Your task to perform on an android device: Go to battery settings Image 0: 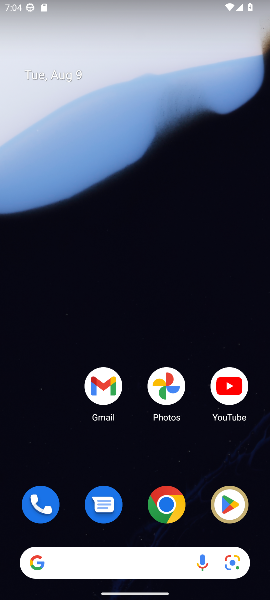
Step 0: press home button
Your task to perform on an android device: Go to battery settings Image 1: 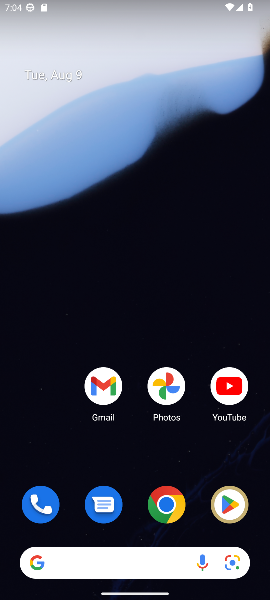
Step 1: drag from (141, 463) to (175, 36)
Your task to perform on an android device: Go to battery settings Image 2: 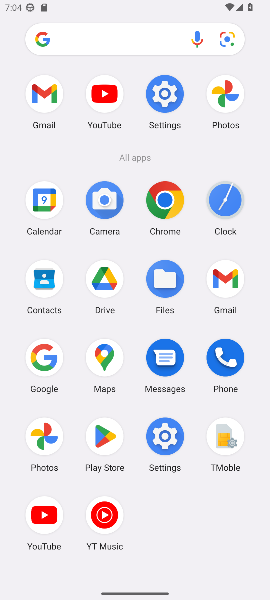
Step 2: click (160, 435)
Your task to perform on an android device: Go to battery settings Image 3: 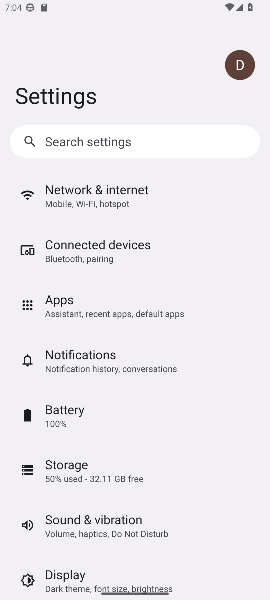
Step 3: drag from (164, 417) to (164, 221)
Your task to perform on an android device: Go to battery settings Image 4: 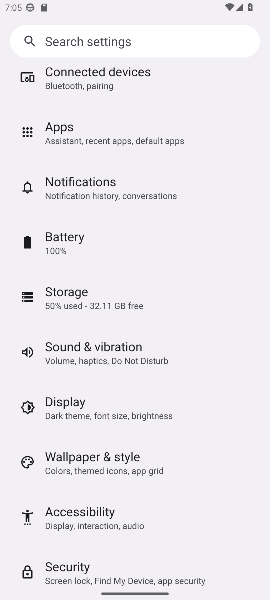
Step 4: drag from (149, 191) to (98, 499)
Your task to perform on an android device: Go to battery settings Image 5: 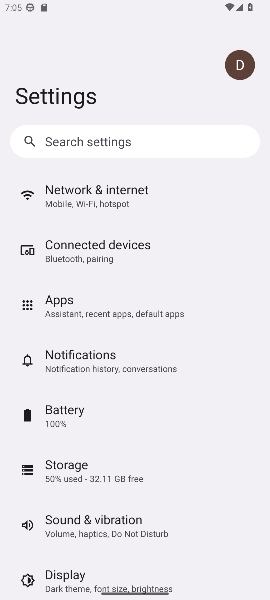
Step 5: click (65, 418)
Your task to perform on an android device: Go to battery settings Image 6: 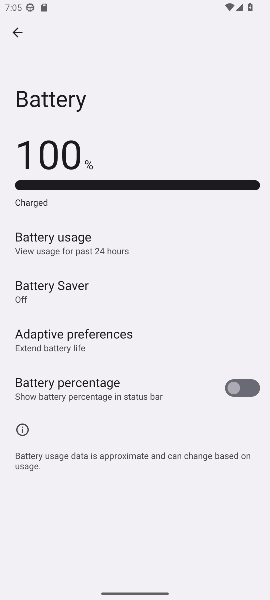
Step 6: task complete